Your task to perform on an android device: install app "Move to iOS" Image 0: 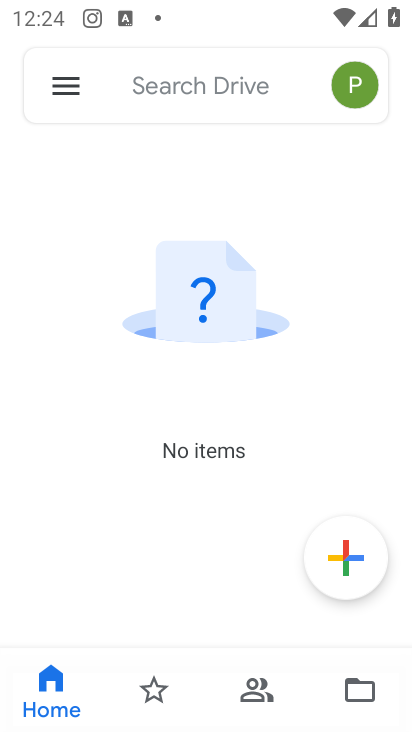
Step 0: press back button
Your task to perform on an android device: install app "Move to iOS" Image 1: 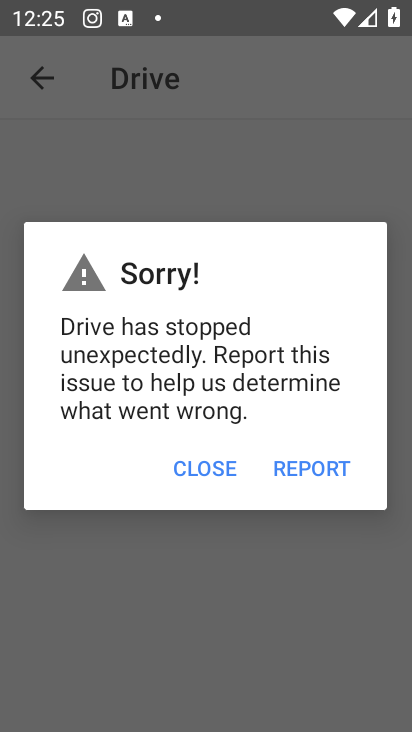
Step 1: press back button
Your task to perform on an android device: install app "Move to iOS" Image 2: 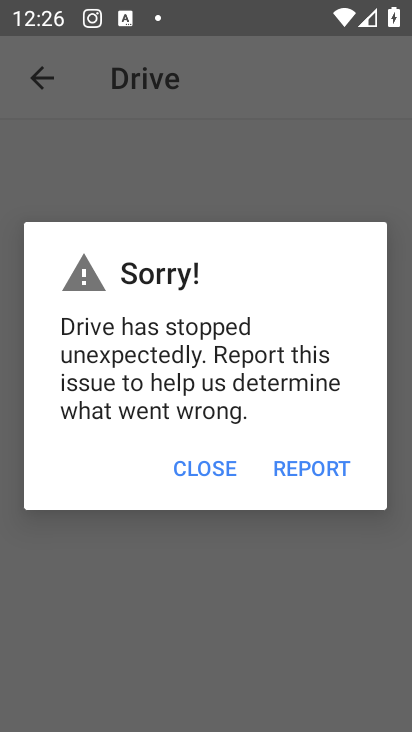
Step 2: click (210, 464)
Your task to perform on an android device: install app "Move to iOS" Image 3: 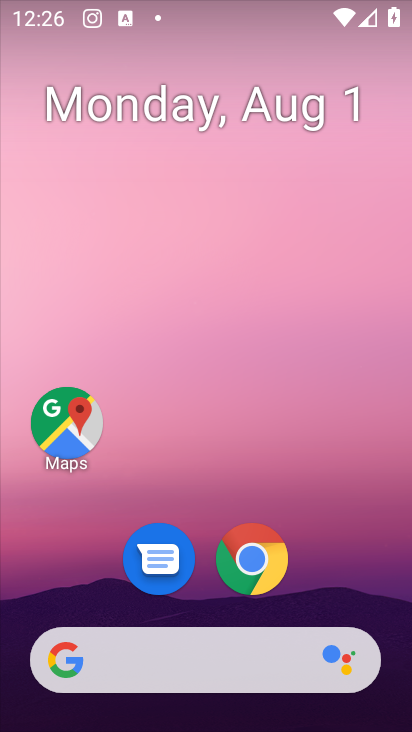
Step 3: drag from (58, 567) to (164, 85)
Your task to perform on an android device: install app "Move to iOS" Image 4: 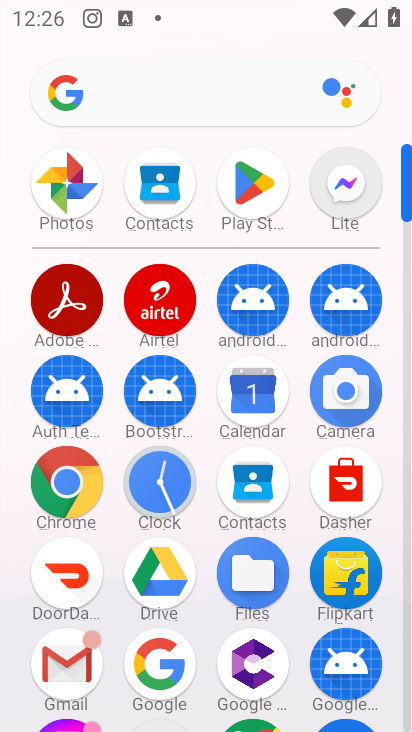
Step 4: click (249, 185)
Your task to perform on an android device: install app "Move to iOS" Image 5: 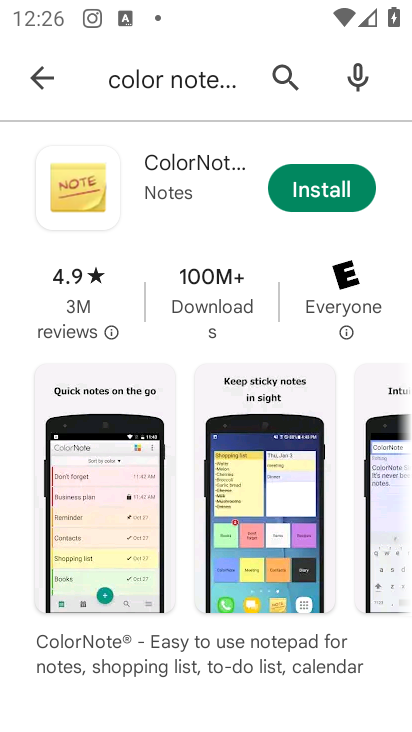
Step 5: click (288, 77)
Your task to perform on an android device: install app "Move to iOS" Image 6: 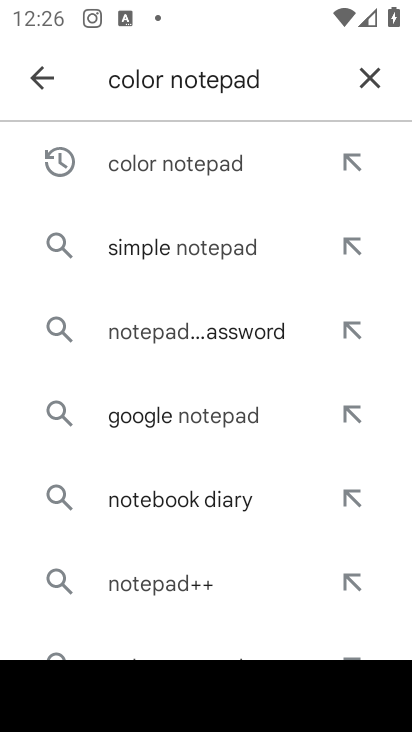
Step 6: click (360, 78)
Your task to perform on an android device: install app "Move to iOS" Image 7: 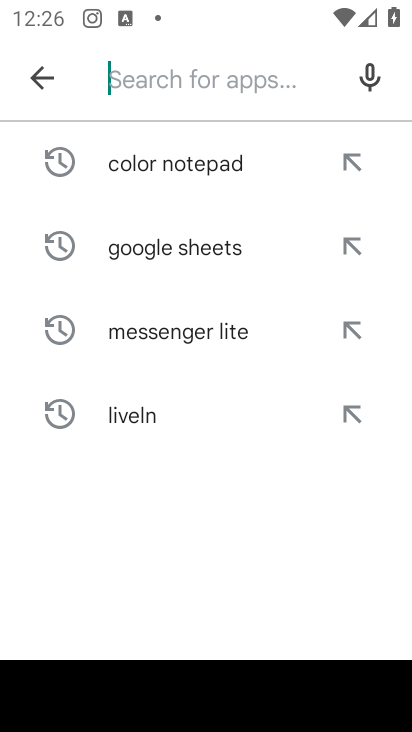
Step 7: click (149, 70)
Your task to perform on an android device: install app "Move to iOS" Image 8: 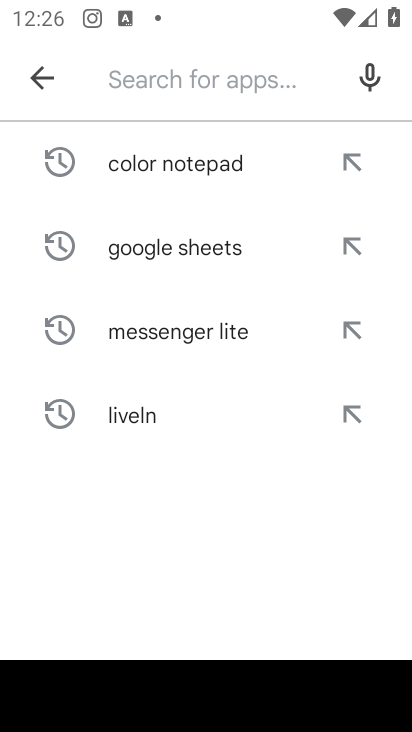
Step 8: type "move to ios"
Your task to perform on an android device: install app "Move to iOS" Image 9: 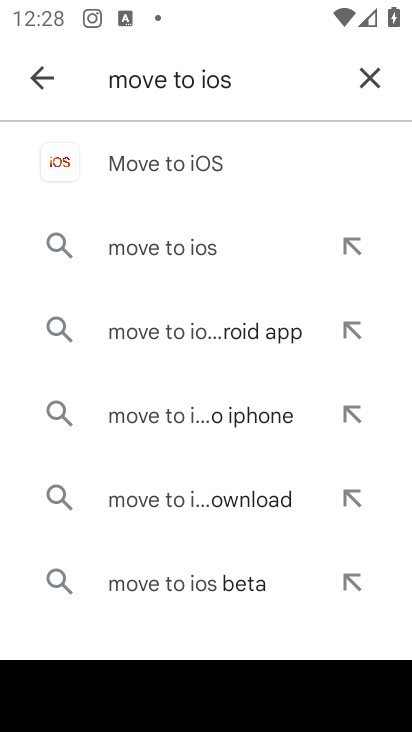
Step 9: click (167, 160)
Your task to perform on an android device: install app "Move to iOS" Image 10: 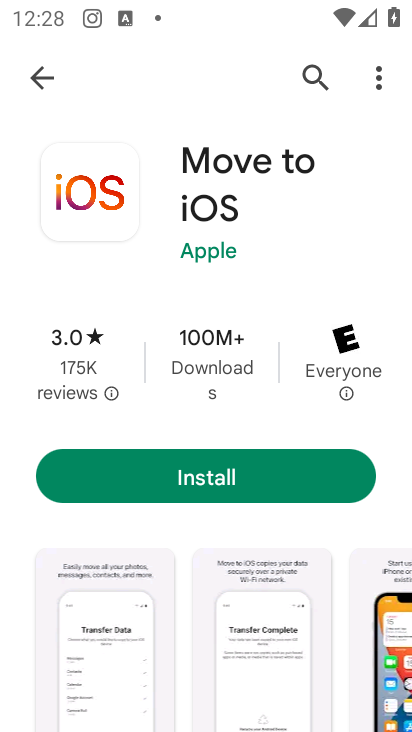
Step 10: click (259, 476)
Your task to perform on an android device: install app "Move to iOS" Image 11: 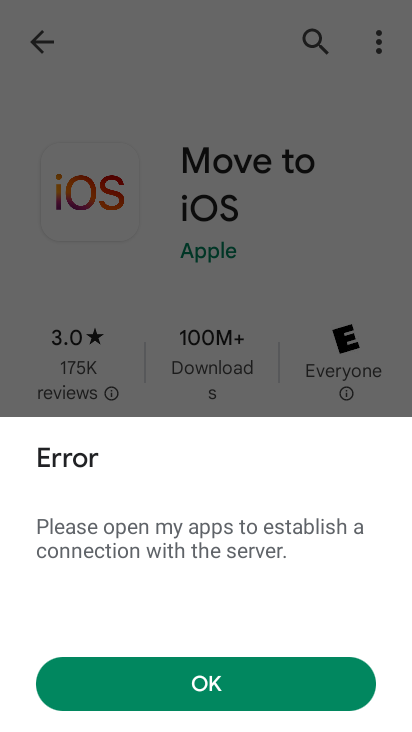
Step 11: click (194, 681)
Your task to perform on an android device: install app "Move to iOS" Image 12: 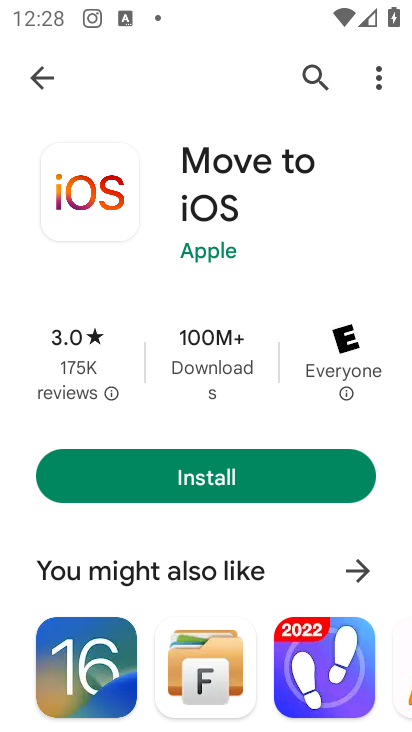
Step 12: task complete